Your task to perform on an android device: move a message to another label in the gmail app Image 0: 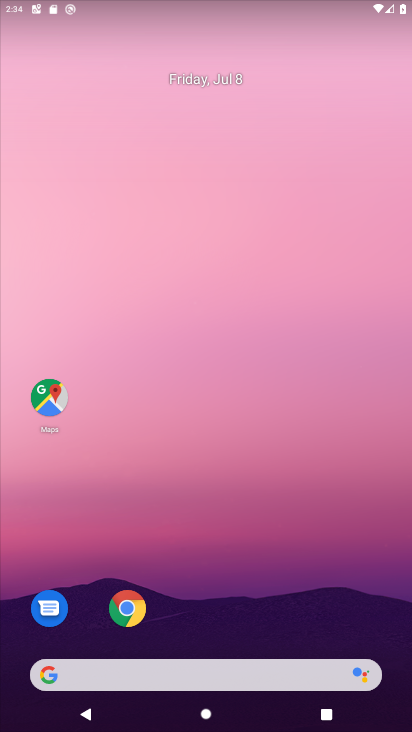
Step 0: drag from (230, 658) to (267, 398)
Your task to perform on an android device: move a message to another label in the gmail app Image 1: 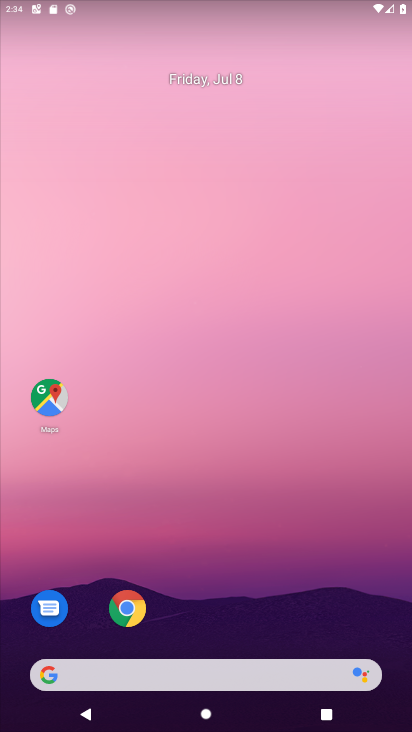
Step 1: drag from (211, 606) to (245, 147)
Your task to perform on an android device: move a message to another label in the gmail app Image 2: 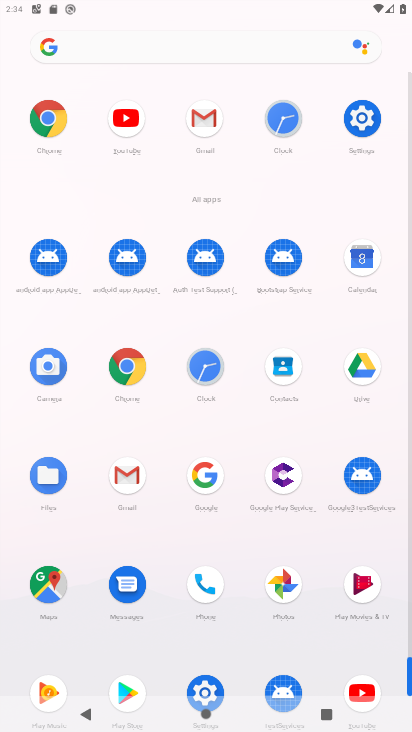
Step 2: click (203, 117)
Your task to perform on an android device: move a message to another label in the gmail app Image 3: 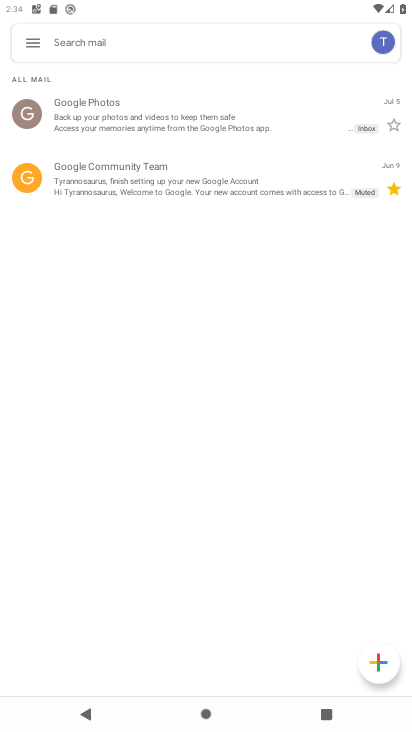
Step 3: click (25, 43)
Your task to perform on an android device: move a message to another label in the gmail app Image 4: 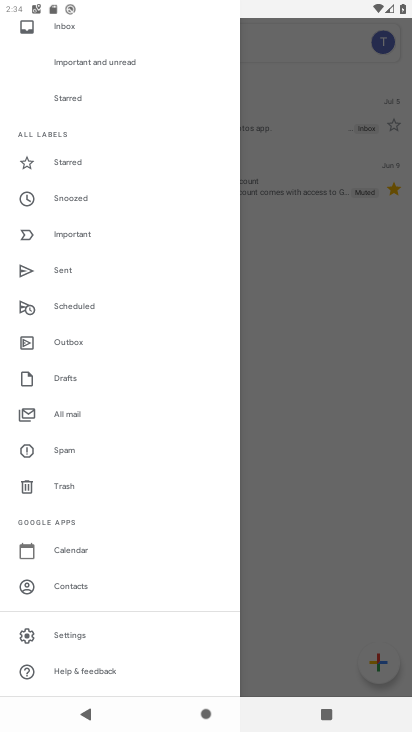
Step 4: click (77, 631)
Your task to perform on an android device: move a message to another label in the gmail app Image 5: 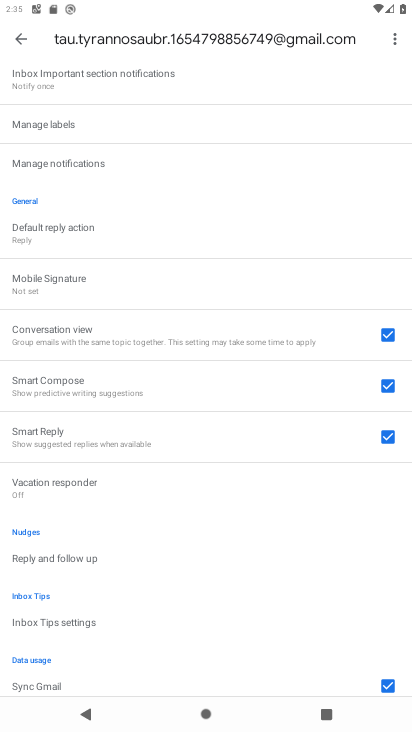
Step 5: click (25, 45)
Your task to perform on an android device: move a message to another label in the gmail app Image 6: 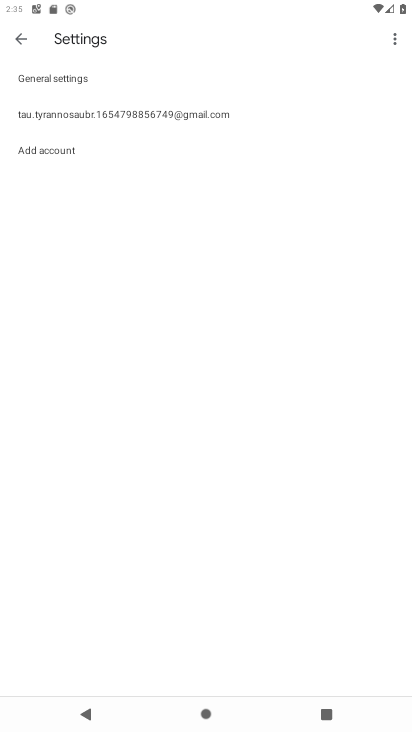
Step 6: click (10, 33)
Your task to perform on an android device: move a message to another label in the gmail app Image 7: 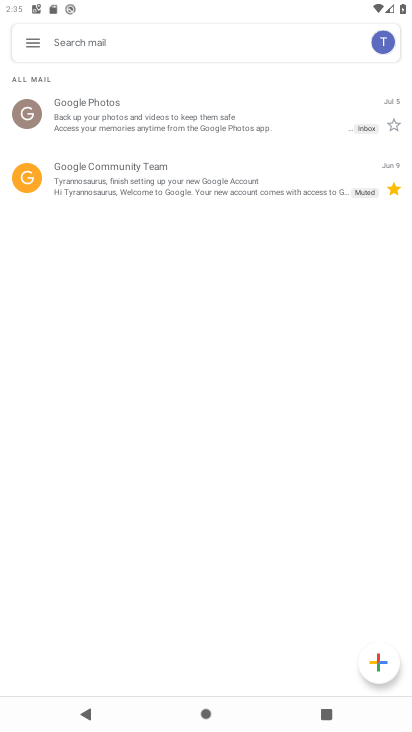
Step 7: click (92, 114)
Your task to perform on an android device: move a message to another label in the gmail app Image 8: 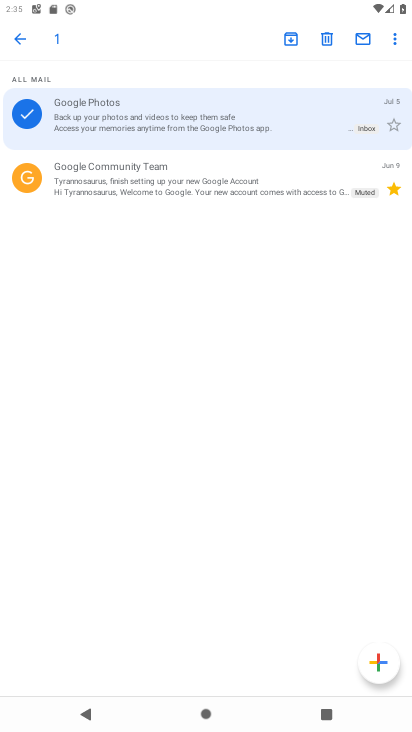
Step 8: click (402, 39)
Your task to perform on an android device: move a message to another label in the gmail app Image 9: 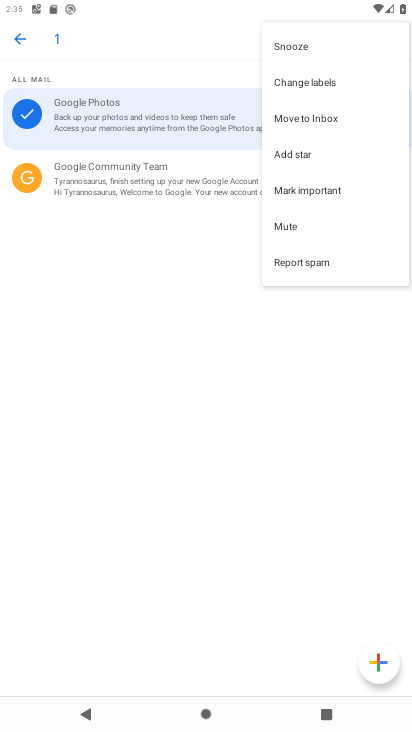
Step 9: click (332, 117)
Your task to perform on an android device: move a message to another label in the gmail app Image 10: 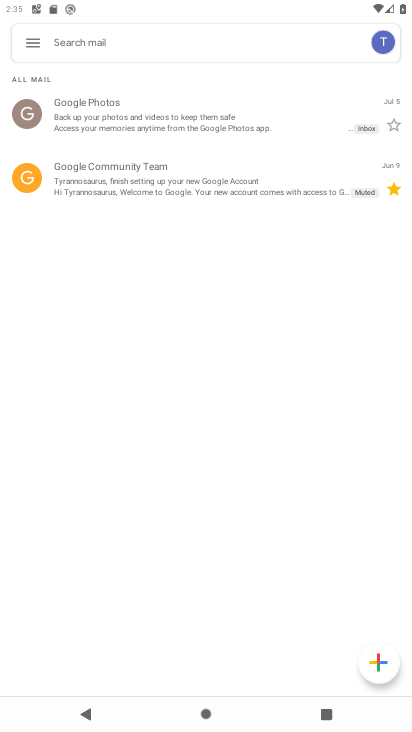
Step 10: task complete